Your task to perform on an android device: toggle pop-ups in chrome Image 0: 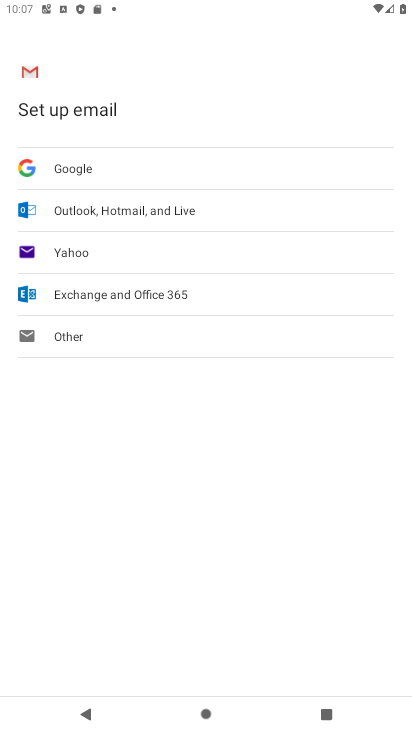
Step 0: press home button
Your task to perform on an android device: toggle pop-ups in chrome Image 1: 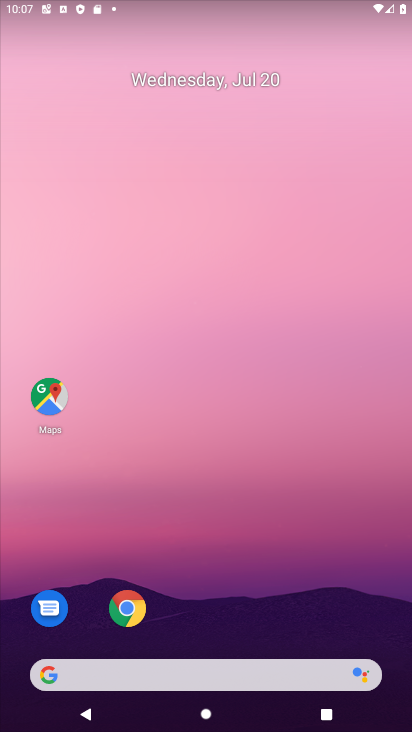
Step 1: drag from (246, 488) to (324, 13)
Your task to perform on an android device: toggle pop-ups in chrome Image 2: 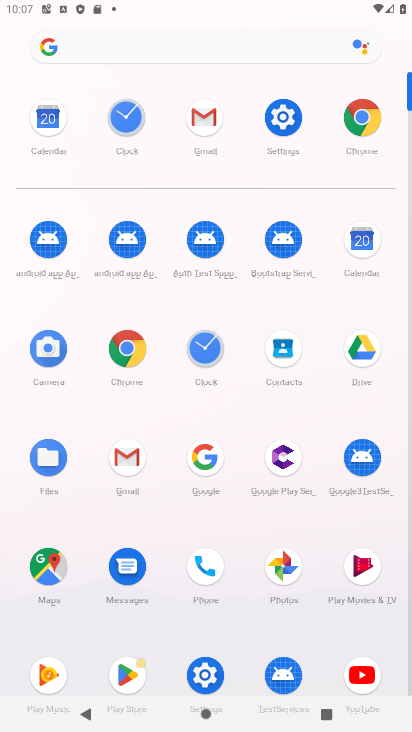
Step 2: click (131, 362)
Your task to perform on an android device: toggle pop-ups in chrome Image 3: 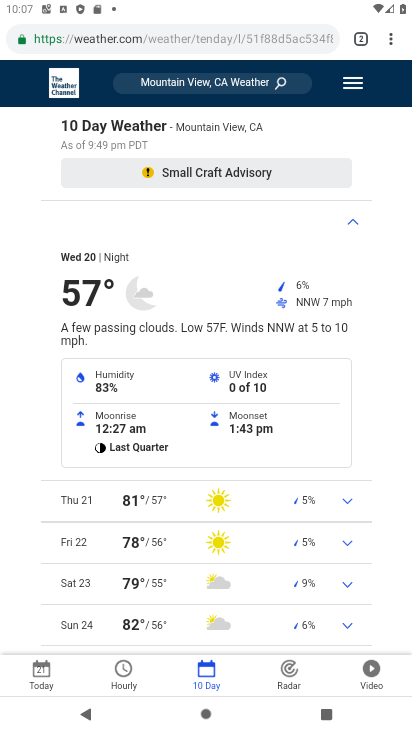
Step 3: click (390, 37)
Your task to perform on an android device: toggle pop-ups in chrome Image 4: 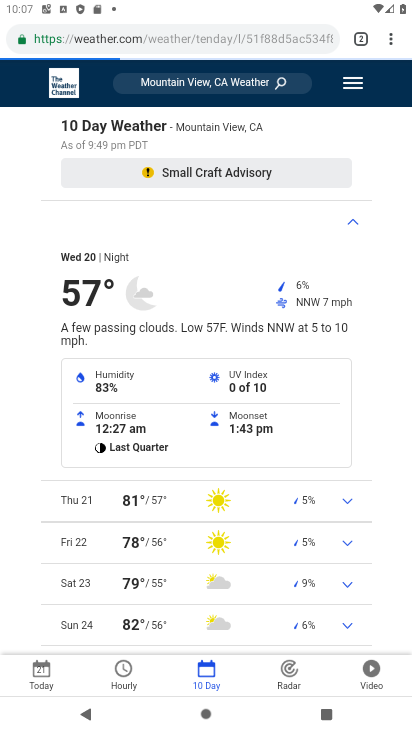
Step 4: click (388, 35)
Your task to perform on an android device: toggle pop-ups in chrome Image 5: 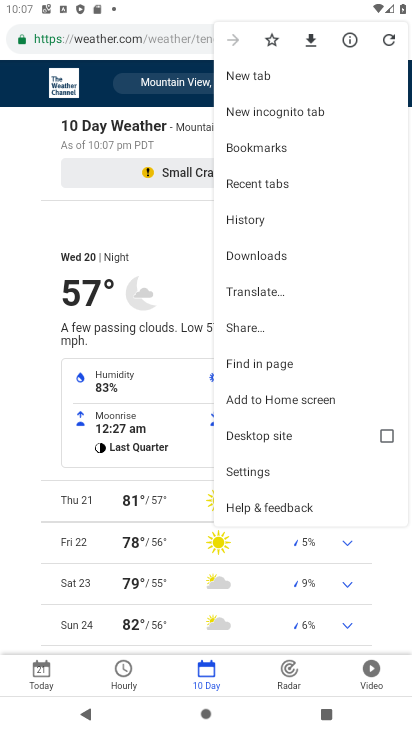
Step 5: click (256, 464)
Your task to perform on an android device: toggle pop-ups in chrome Image 6: 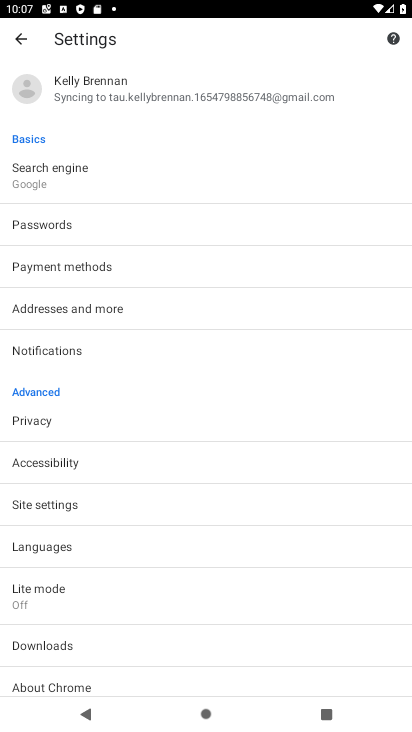
Step 6: click (124, 498)
Your task to perform on an android device: toggle pop-ups in chrome Image 7: 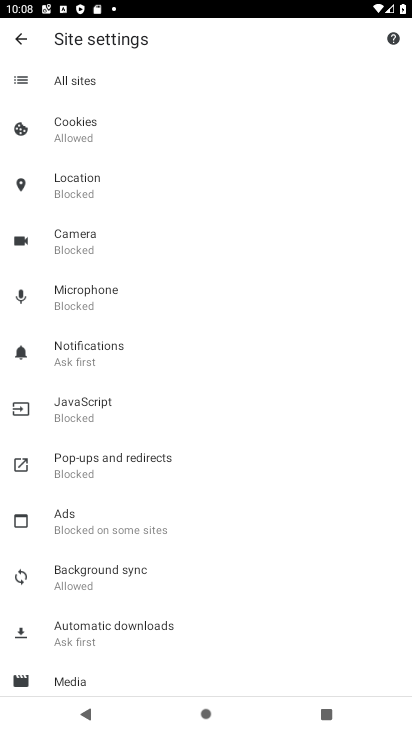
Step 7: click (135, 459)
Your task to perform on an android device: toggle pop-ups in chrome Image 8: 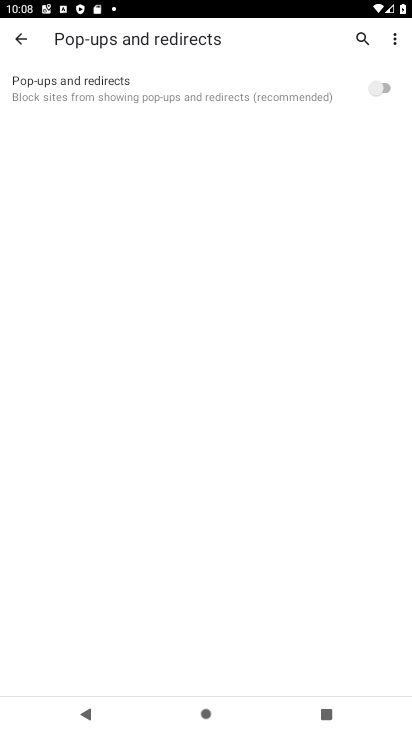
Step 8: click (366, 84)
Your task to perform on an android device: toggle pop-ups in chrome Image 9: 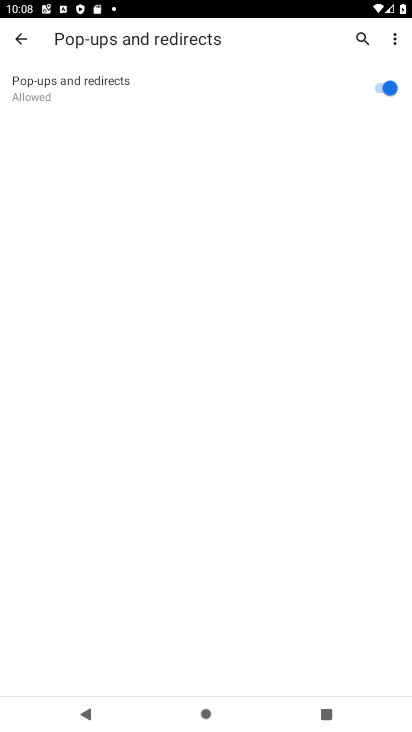
Step 9: task complete